Your task to perform on an android device: find photos in the google photos app Image 0: 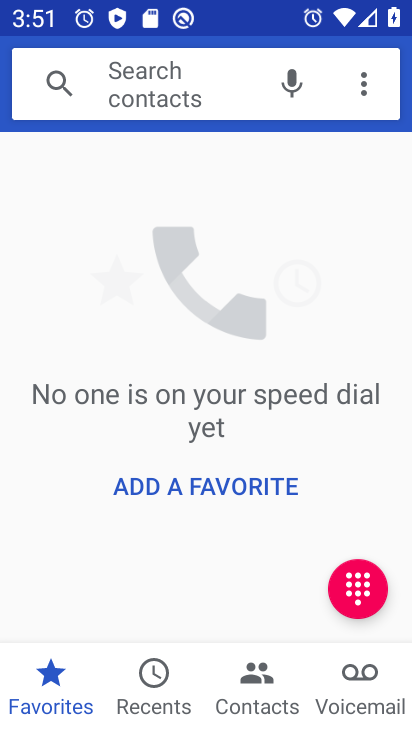
Step 0: press home button
Your task to perform on an android device: find photos in the google photos app Image 1: 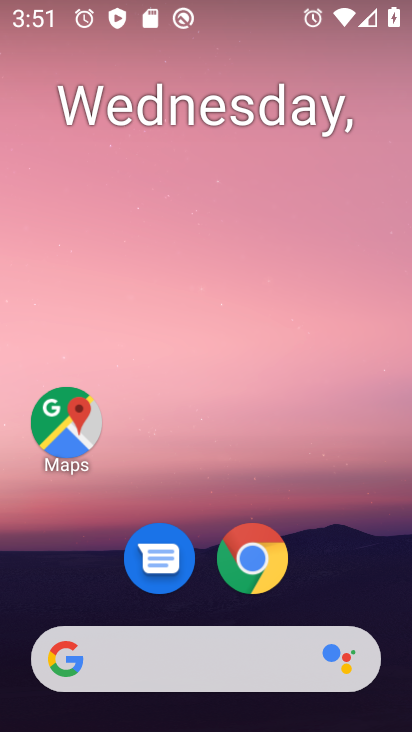
Step 1: drag from (112, 627) to (112, 315)
Your task to perform on an android device: find photos in the google photos app Image 2: 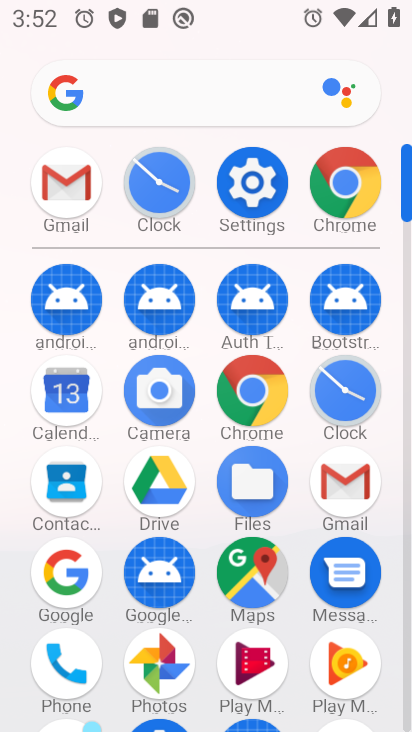
Step 2: click (163, 662)
Your task to perform on an android device: find photos in the google photos app Image 3: 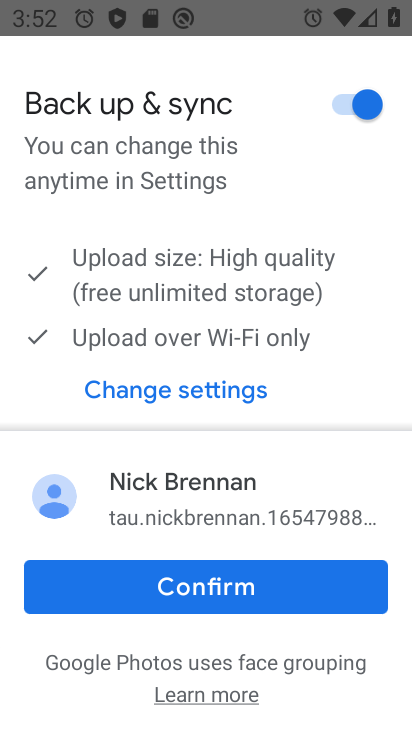
Step 3: click (183, 587)
Your task to perform on an android device: find photos in the google photos app Image 4: 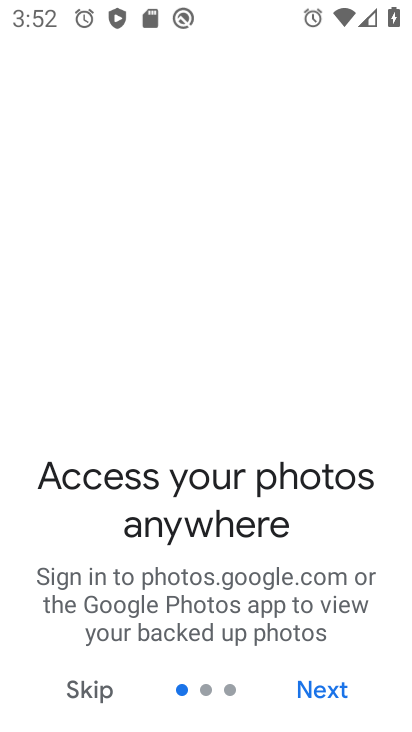
Step 4: click (297, 692)
Your task to perform on an android device: find photos in the google photos app Image 5: 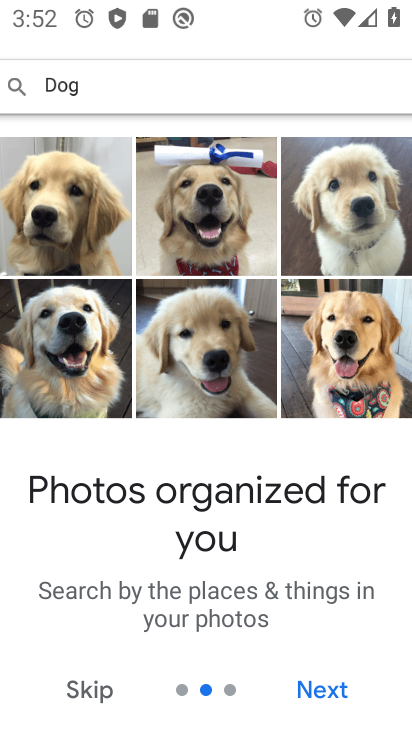
Step 5: click (309, 690)
Your task to perform on an android device: find photos in the google photos app Image 6: 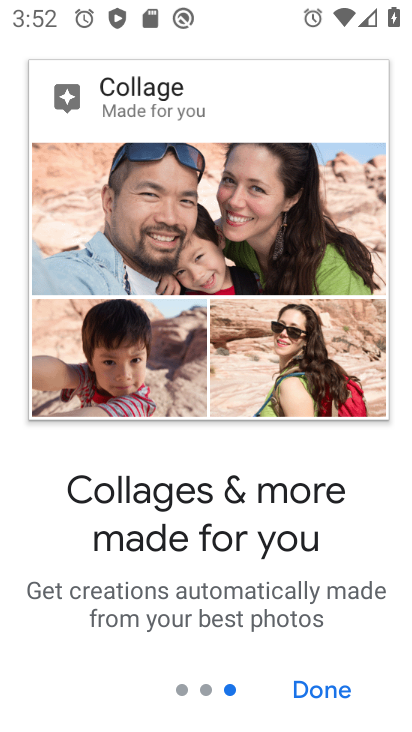
Step 6: click (310, 689)
Your task to perform on an android device: find photos in the google photos app Image 7: 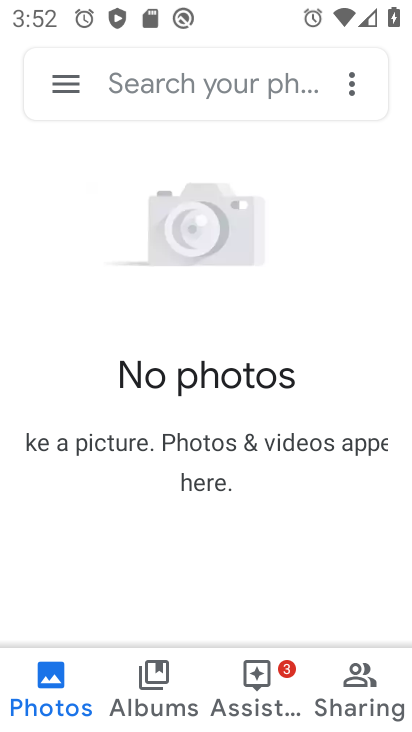
Step 7: task complete